Your task to perform on an android device: Open the phone app and click the voicemail tab. Image 0: 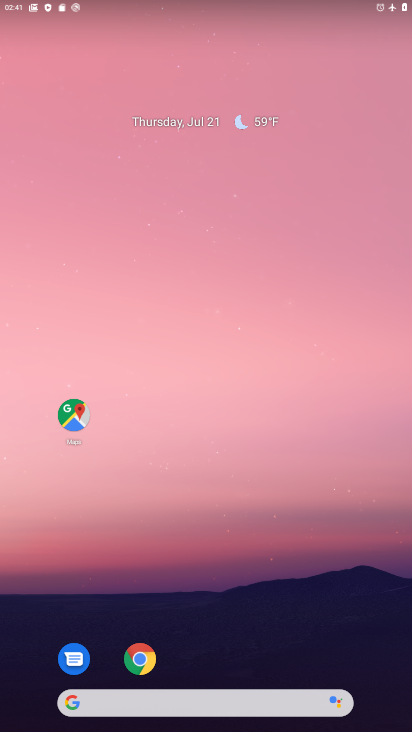
Step 0: drag from (328, 601) to (262, 22)
Your task to perform on an android device: Open the phone app and click the voicemail tab. Image 1: 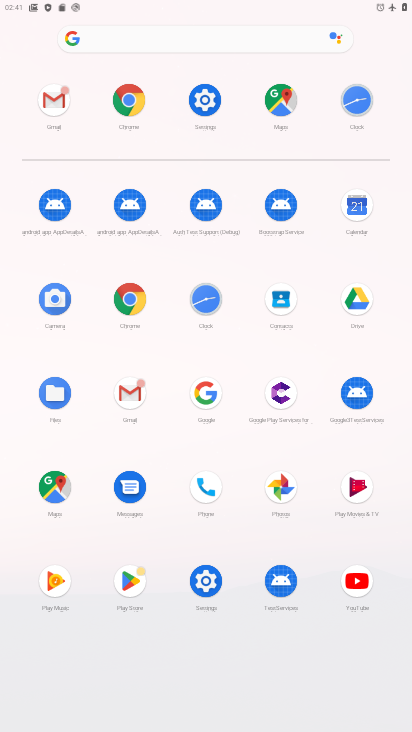
Step 1: click (207, 500)
Your task to perform on an android device: Open the phone app and click the voicemail tab. Image 2: 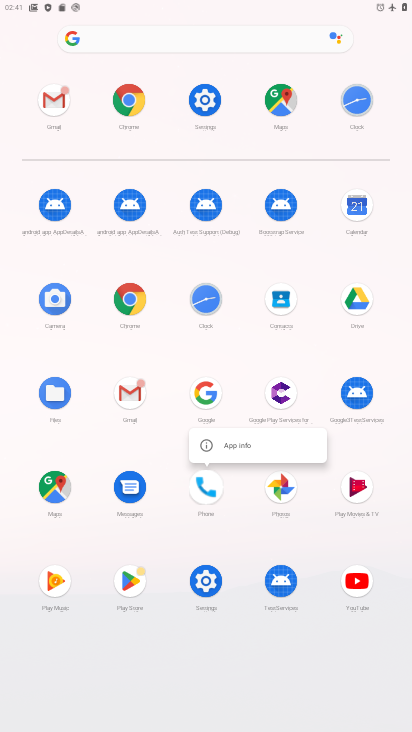
Step 2: click (204, 477)
Your task to perform on an android device: Open the phone app and click the voicemail tab. Image 3: 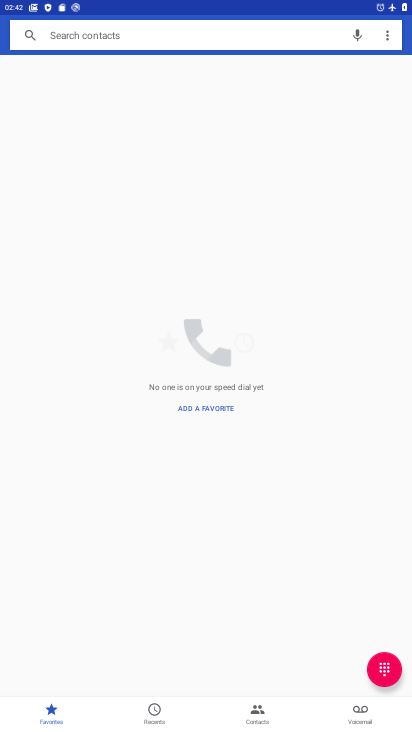
Step 3: click (368, 713)
Your task to perform on an android device: Open the phone app and click the voicemail tab. Image 4: 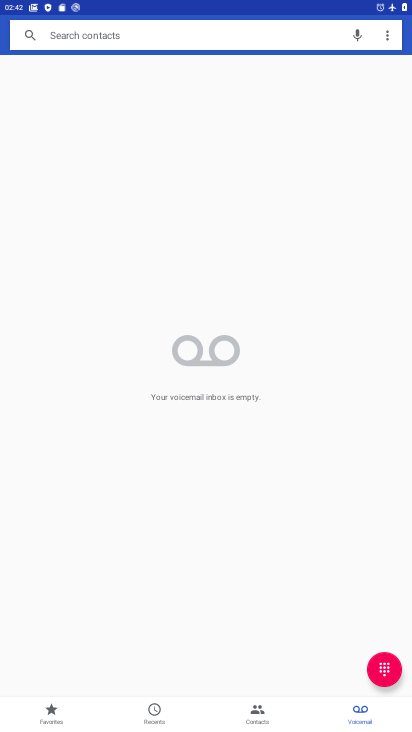
Step 4: task complete